Your task to perform on an android device: open app "Spotify" (install if not already installed) Image 0: 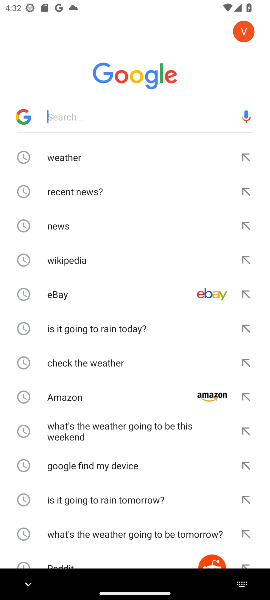
Step 0: press home button
Your task to perform on an android device: open app "Spotify" (install if not already installed) Image 1: 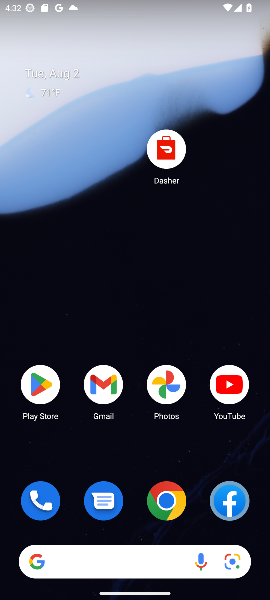
Step 1: click (37, 392)
Your task to perform on an android device: open app "Spotify" (install if not already installed) Image 2: 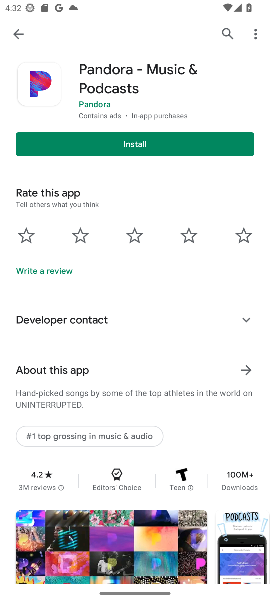
Step 2: click (228, 30)
Your task to perform on an android device: open app "Spotify" (install if not already installed) Image 3: 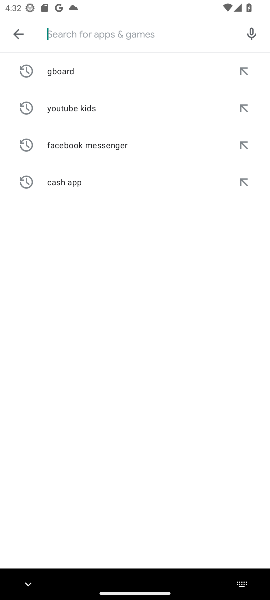
Step 3: type "Spotify"
Your task to perform on an android device: open app "Spotify" (install if not already installed) Image 4: 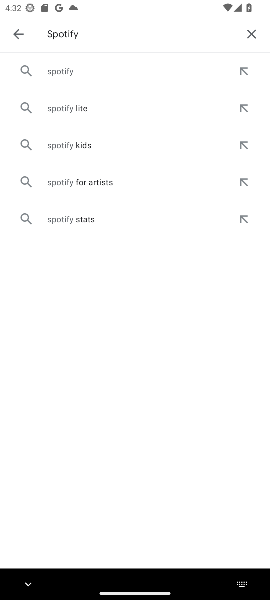
Step 4: click (65, 76)
Your task to perform on an android device: open app "Spotify" (install if not already installed) Image 5: 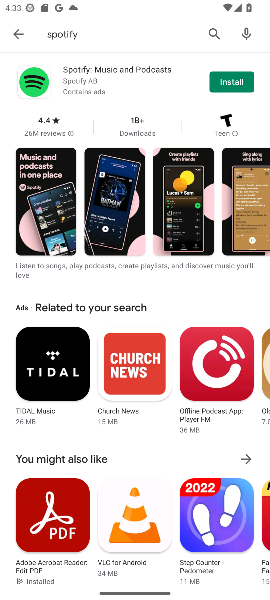
Step 5: click (220, 84)
Your task to perform on an android device: open app "Spotify" (install if not already installed) Image 6: 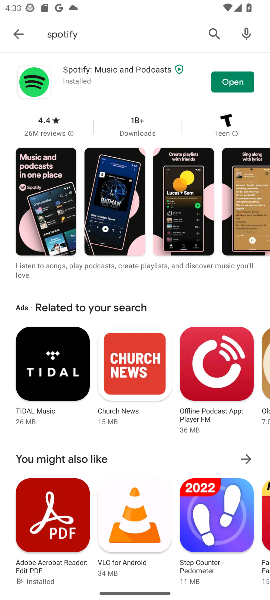
Step 6: click (234, 89)
Your task to perform on an android device: open app "Spotify" (install if not already installed) Image 7: 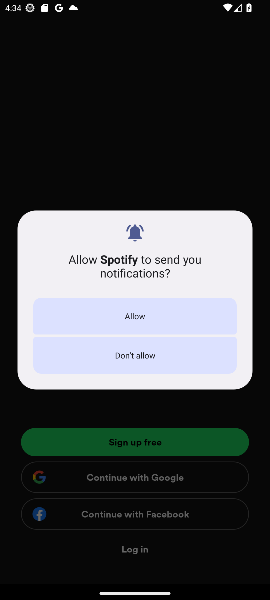
Step 7: task complete